Your task to perform on an android device: What's on my calendar today? Image 0: 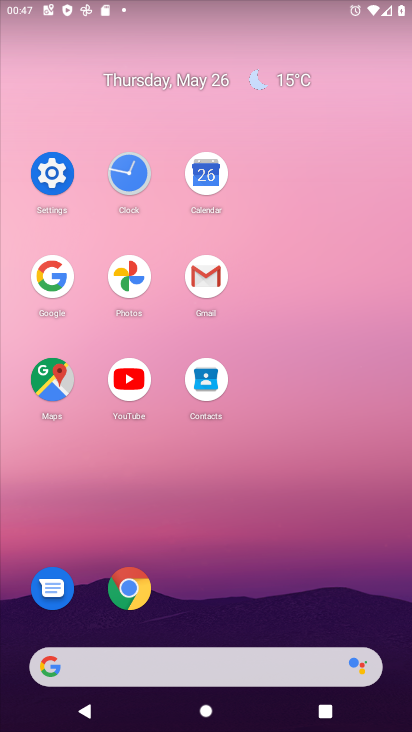
Step 0: click (210, 174)
Your task to perform on an android device: What's on my calendar today? Image 1: 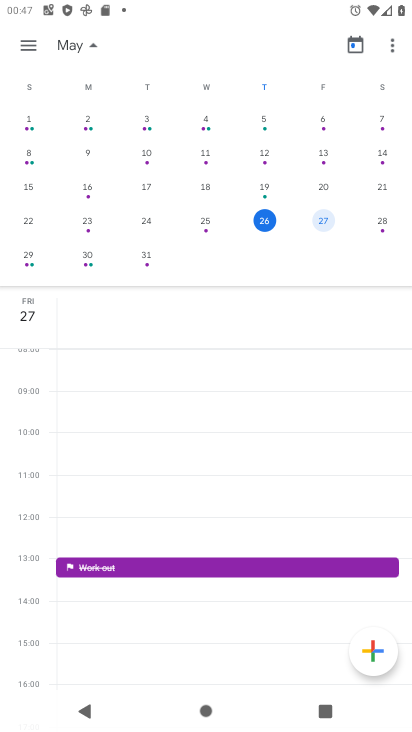
Step 1: task complete